Your task to perform on an android device: Open the calendar and show me this week's events? Image 0: 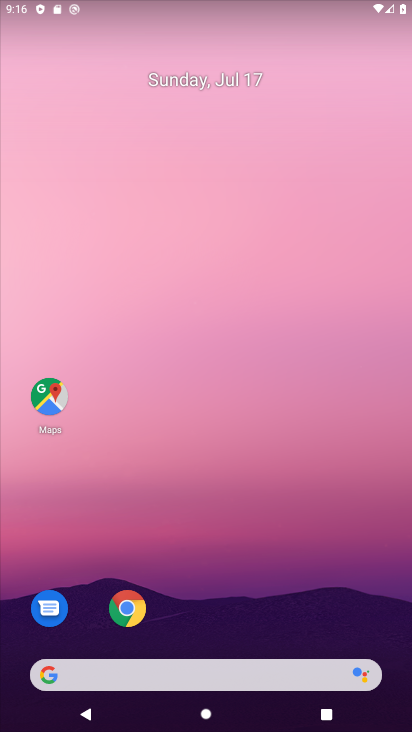
Step 0: drag from (220, 651) to (198, 0)
Your task to perform on an android device: Open the calendar and show me this week's events? Image 1: 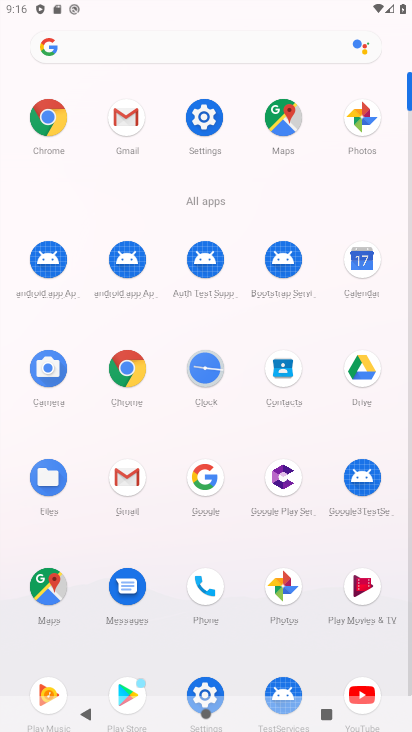
Step 1: click (369, 266)
Your task to perform on an android device: Open the calendar and show me this week's events? Image 2: 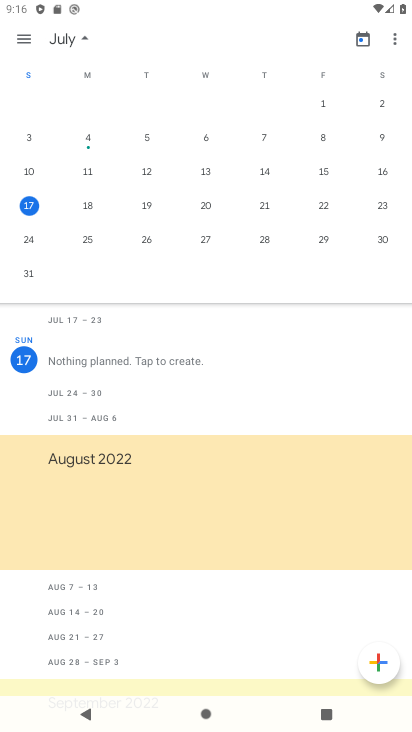
Step 2: task complete